Your task to perform on an android device: Open accessibility settings Image 0: 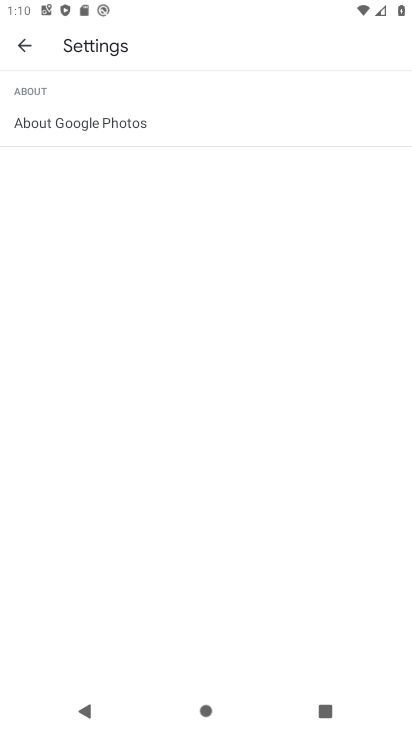
Step 0: press home button
Your task to perform on an android device: Open accessibility settings Image 1: 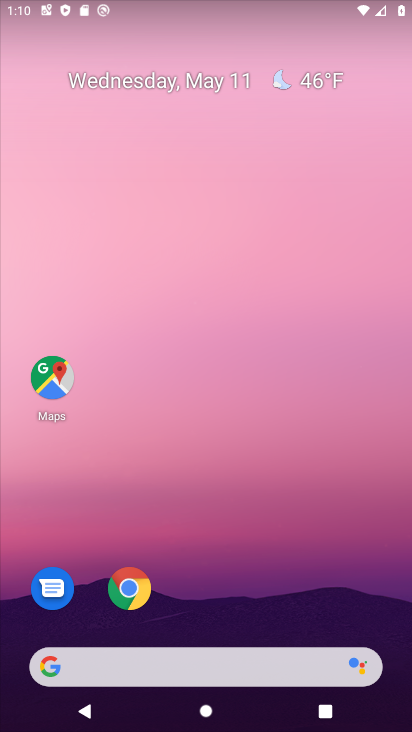
Step 1: drag from (263, 582) to (278, 224)
Your task to perform on an android device: Open accessibility settings Image 2: 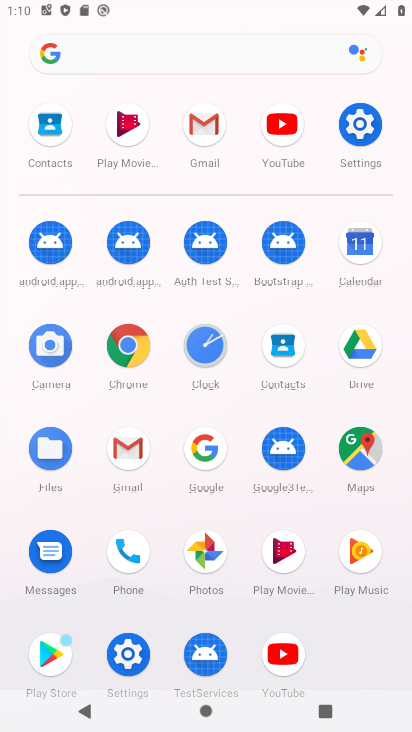
Step 2: click (349, 111)
Your task to perform on an android device: Open accessibility settings Image 3: 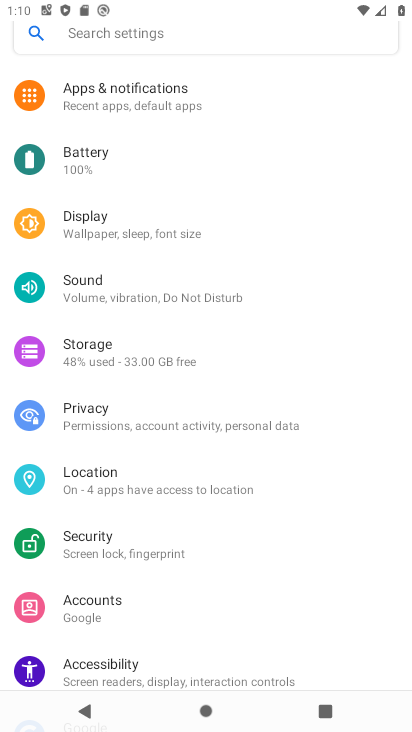
Step 3: drag from (190, 595) to (190, 433)
Your task to perform on an android device: Open accessibility settings Image 4: 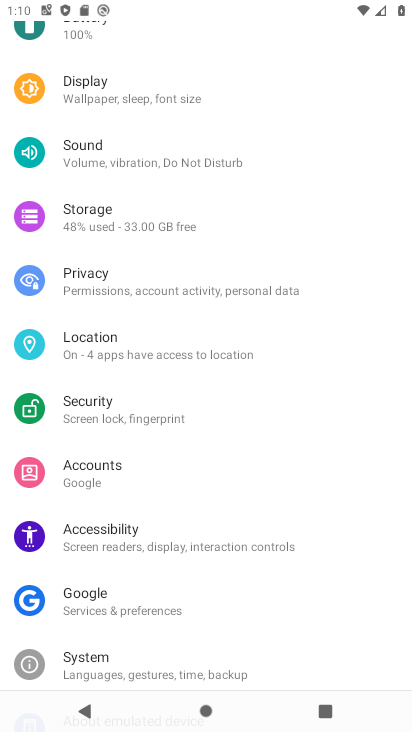
Step 4: click (192, 538)
Your task to perform on an android device: Open accessibility settings Image 5: 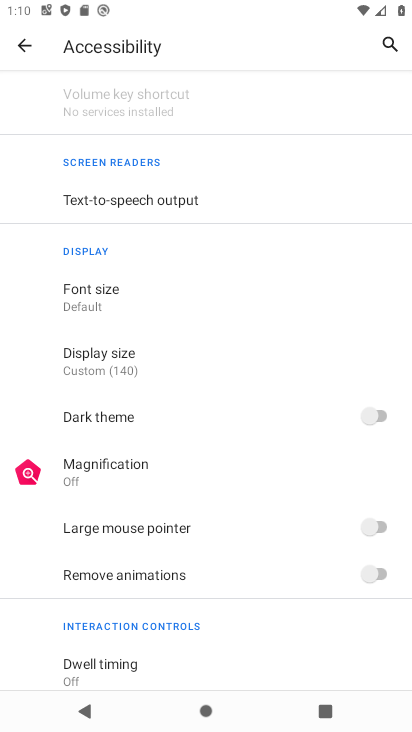
Step 5: task complete